Your task to perform on an android device: Open Chrome and go to the settings page Image 0: 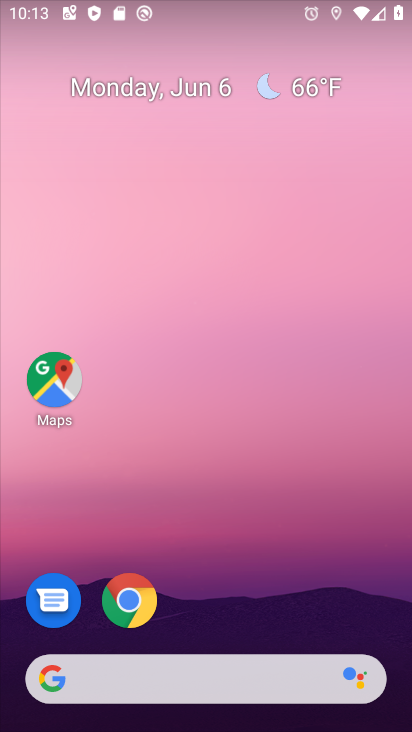
Step 0: click (131, 596)
Your task to perform on an android device: Open Chrome and go to the settings page Image 1: 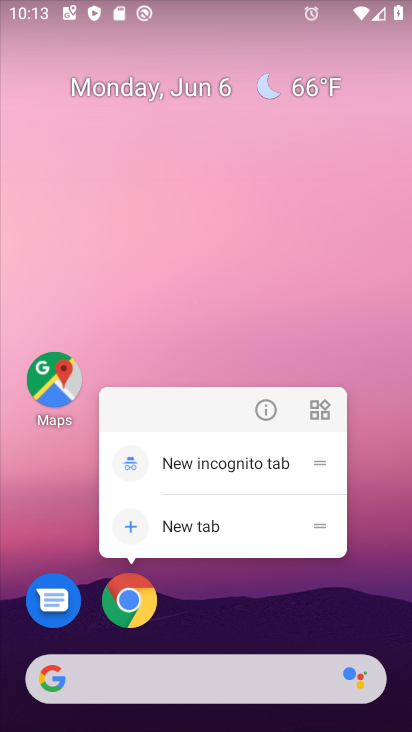
Step 1: click (129, 596)
Your task to perform on an android device: Open Chrome and go to the settings page Image 2: 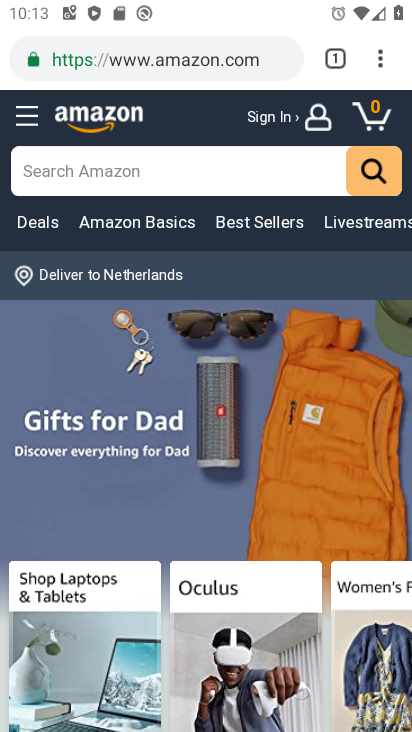
Step 2: click (129, 600)
Your task to perform on an android device: Open Chrome and go to the settings page Image 3: 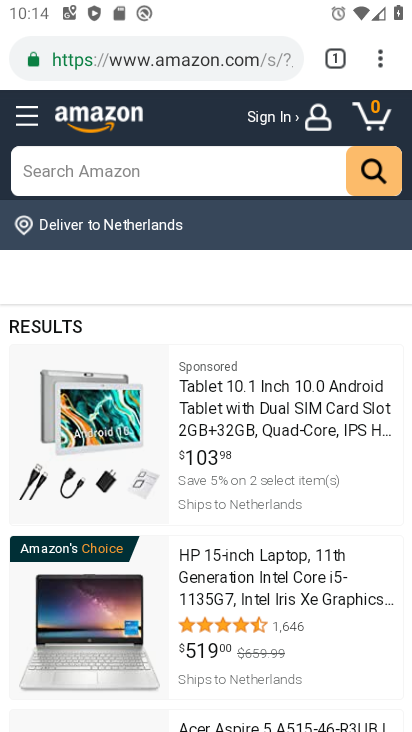
Step 3: click (380, 60)
Your task to perform on an android device: Open Chrome and go to the settings page Image 4: 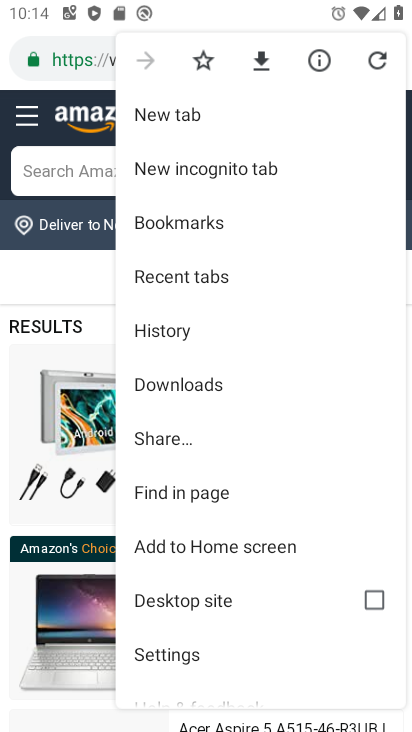
Step 4: click (186, 647)
Your task to perform on an android device: Open Chrome and go to the settings page Image 5: 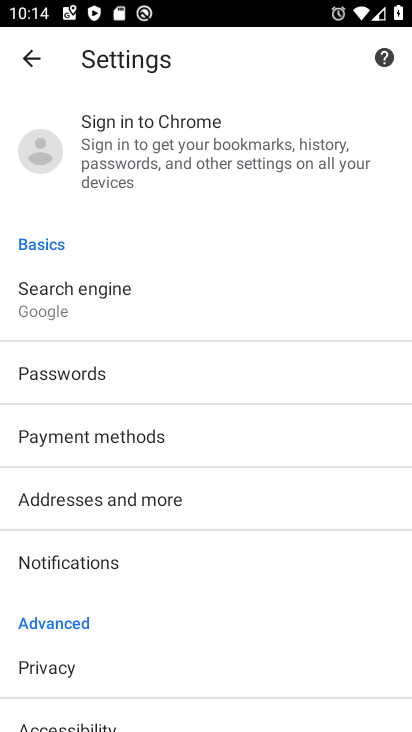
Step 5: task complete